Your task to perform on an android device: change text size in settings app Image 0: 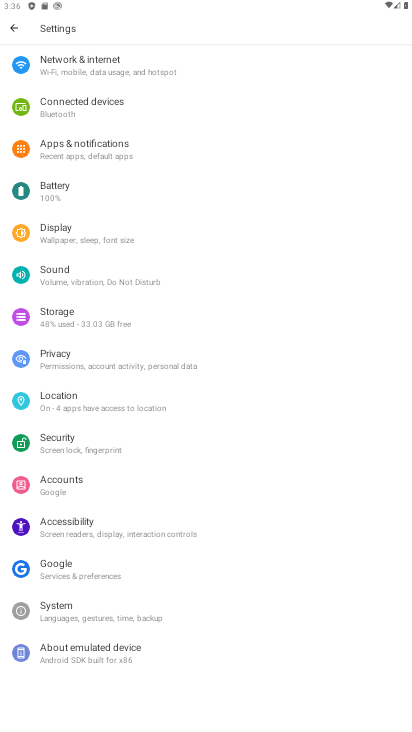
Step 0: click (98, 236)
Your task to perform on an android device: change text size in settings app Image 1: 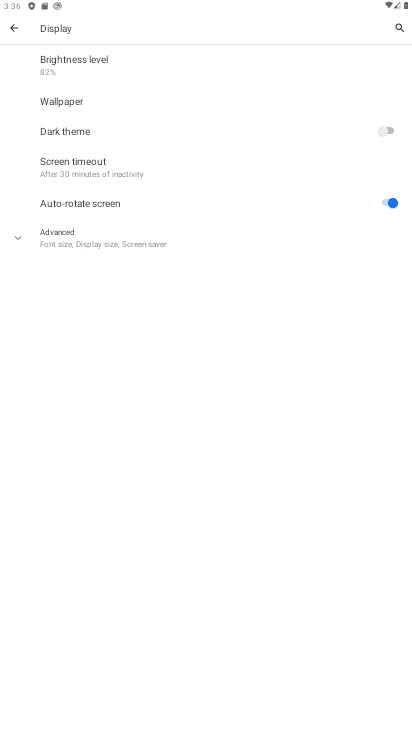
Step 1: click (106, 235)
Your task to perform on an android device: change text size in settings app Image 2: 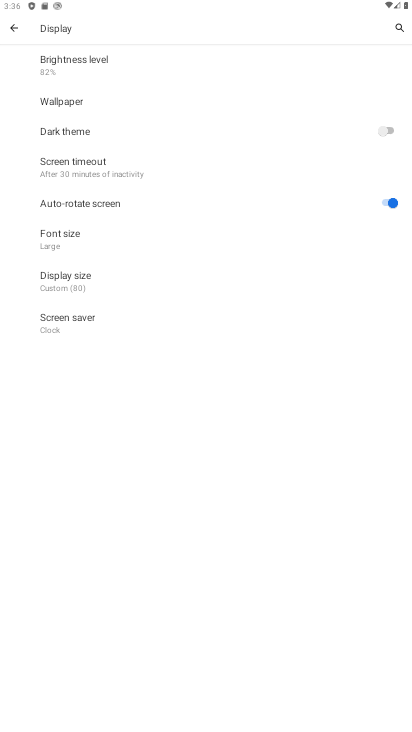
Step 2: click (70, 250)
Your task to perform on an android device: change text size in settings app Image 3: 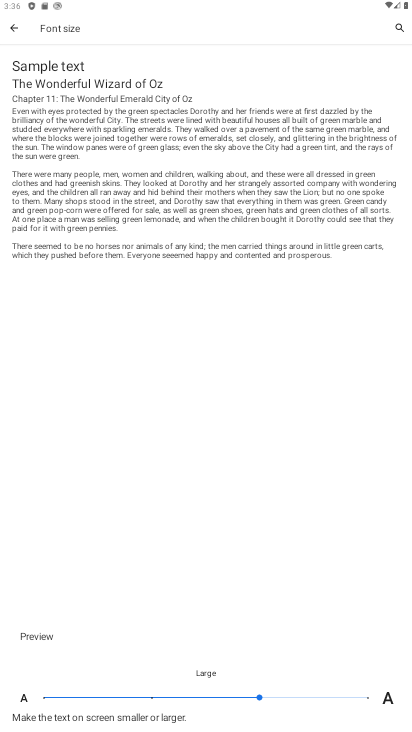
Step 3: click (84, 704)
Your task to perform on an android device: change text size in settings app Image 4: 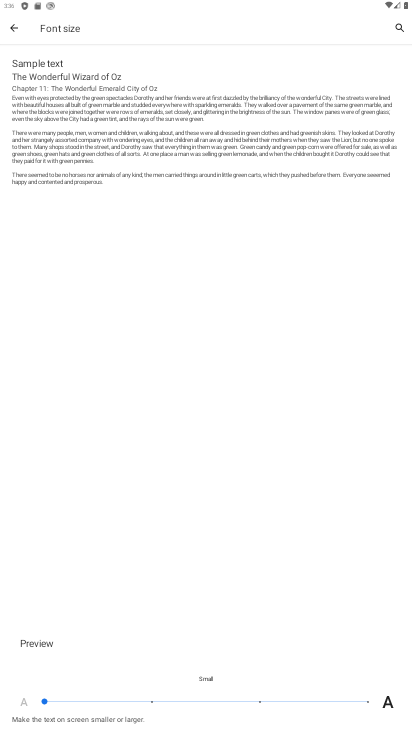
Step 4: task complete